Your task to perform on an android device: Clear all items from cart on bestbuy. Add sony triple a to the cart on bestbuy Image 0: 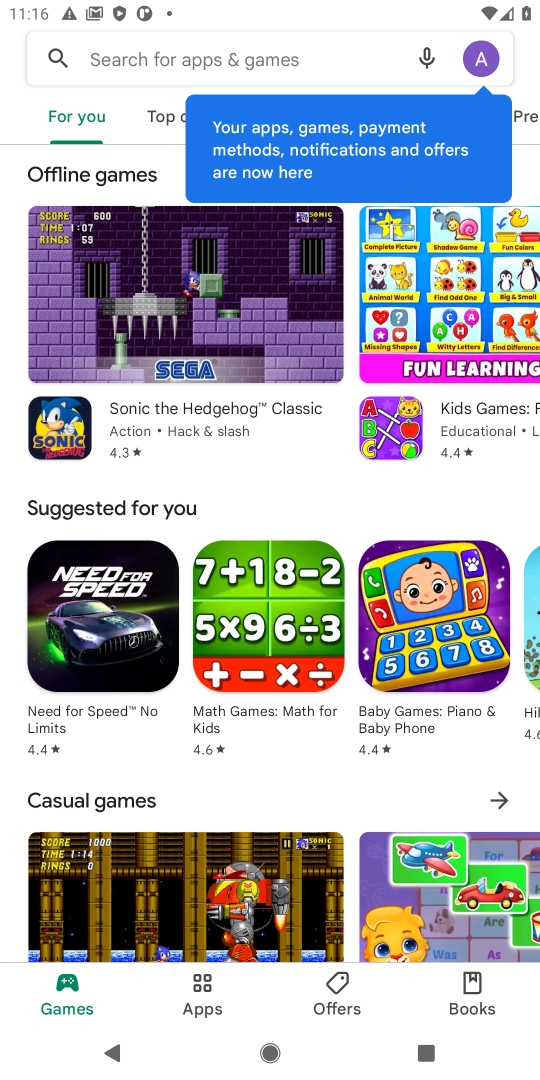
Step 0: press home button
Your task to perform on an android device: Clear all items from cart on bestbuy. Add sony triple a to the cart on bestbuy Image 1: 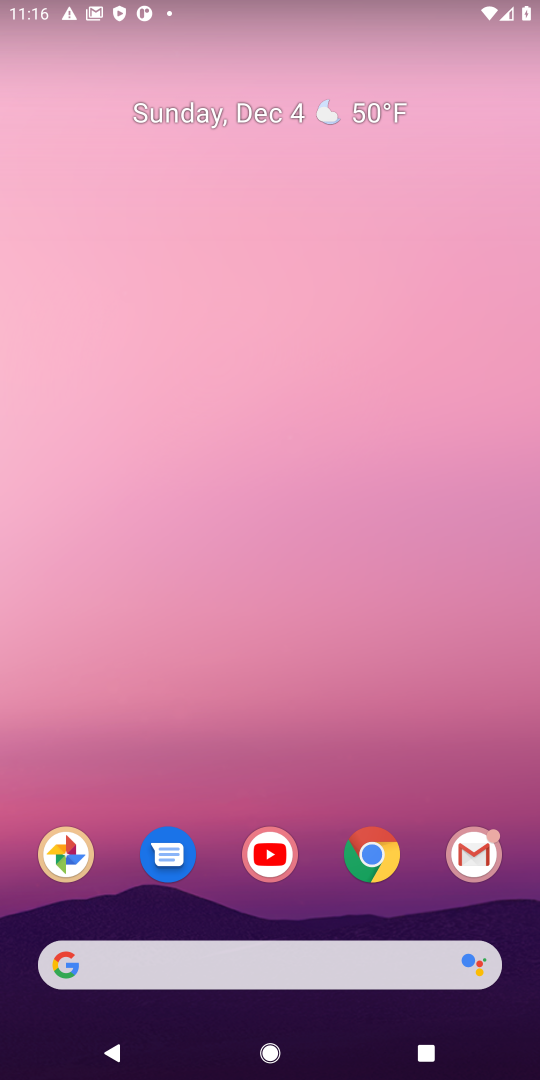
Step 1: click (150, 964)
Your task to perform on an android device: Clear all items from cart on bestbuy. Add sony triple a to the cart on bestbuy Image 2: 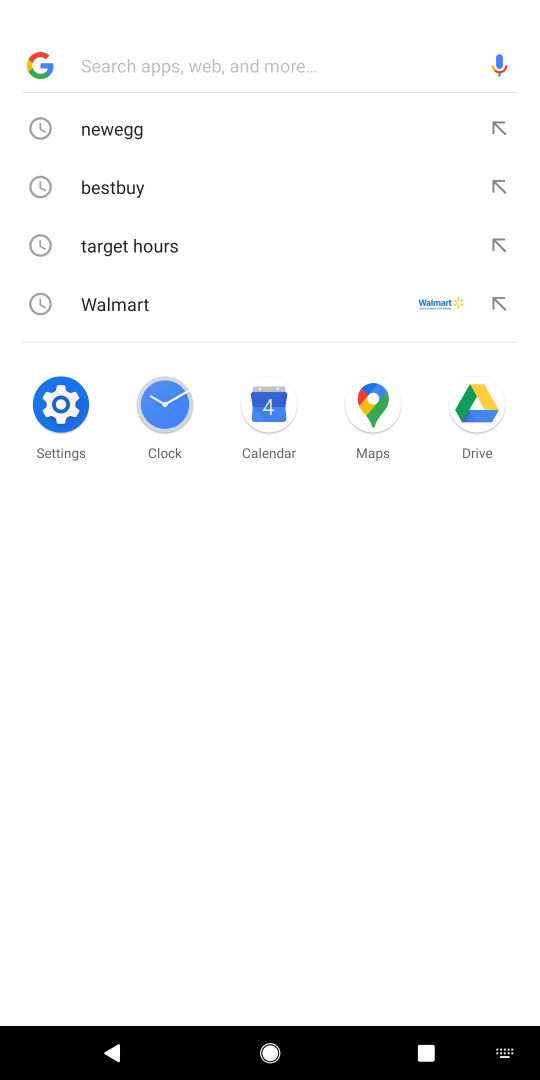
Step 2: type "bestbuy"
Your task to perform on an android device: Clear all items from cart on bestbuy. Add sony triple a to the cart on bestbuy Image 3: 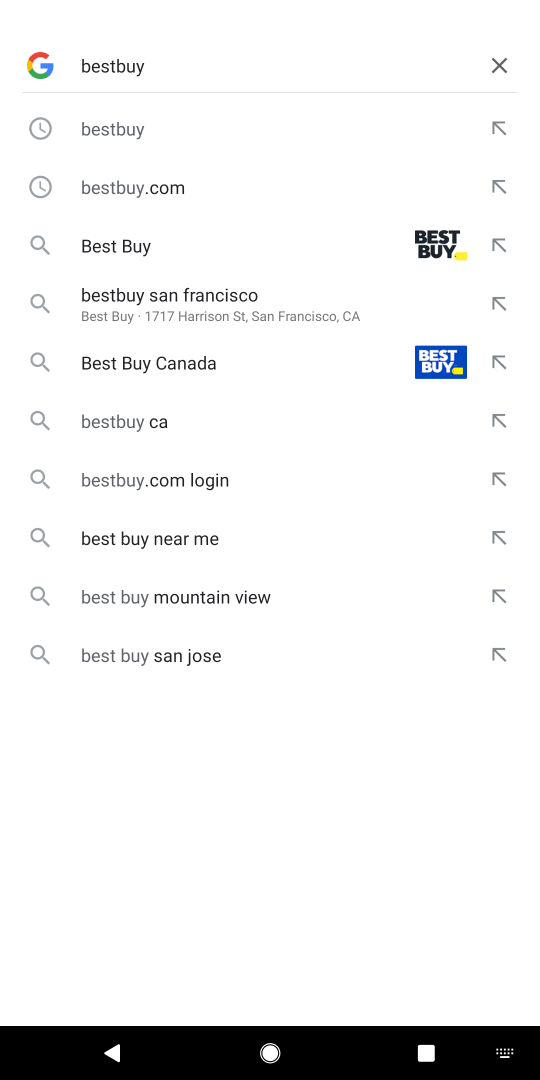
Step 3: click (145, 233)
Your task to perform on an android device: Clear all items from cart on bestbuy. Add sony triple a to the cart on bestbuy Image 4: 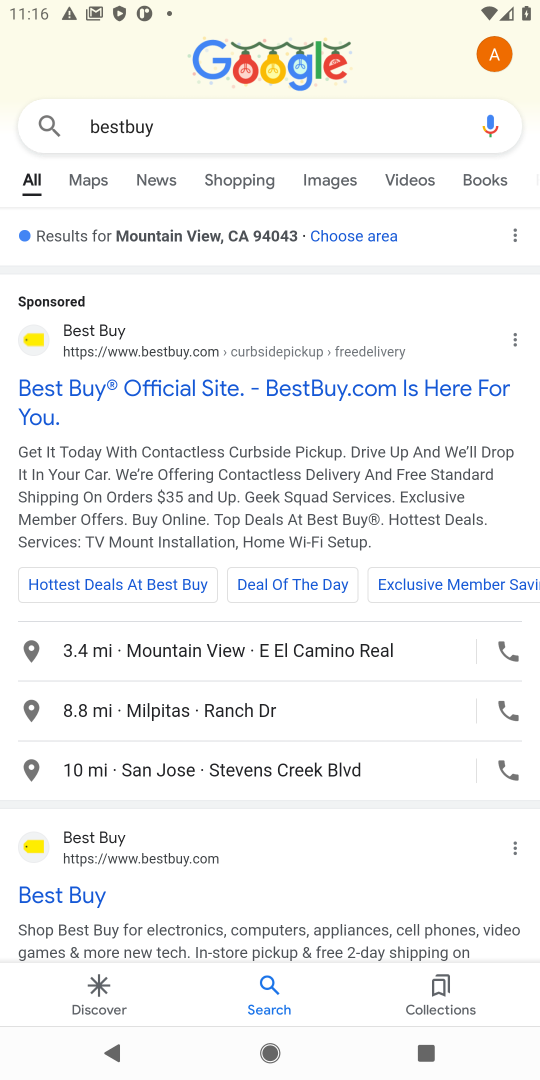
Step 4: click (188, 396)
Your task to perform on an android device: Clear all items from cart on bestbuy. Add sony triple a to the cart on bestbuy Image 5: 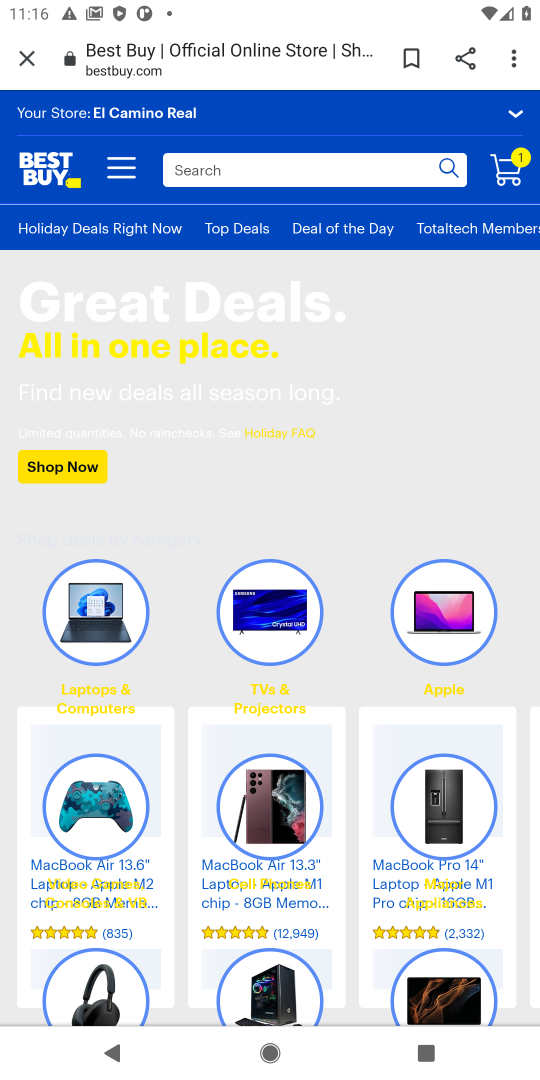
Step 5: click (240, 180)
Your task to perform on an android device: Clear all items from cart on bestbuy. Add sony triple a to the cart on bestbuy Image 6: 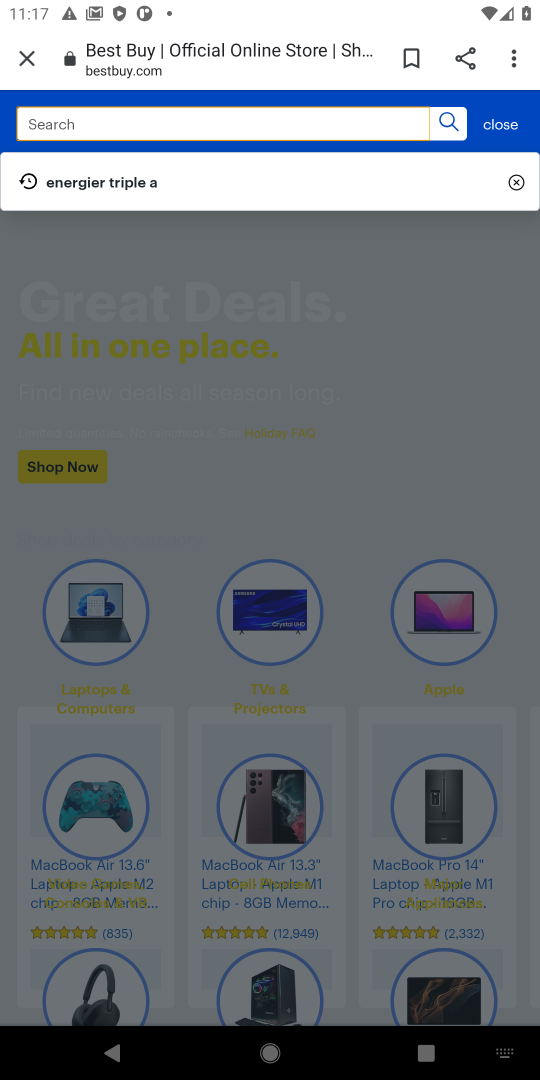
Step 6: type "sony triple a"
Your task to perform on an android device: Clear all items from cart on bestbuy. Add sony triple a to the cart on bestbuy Image 7: 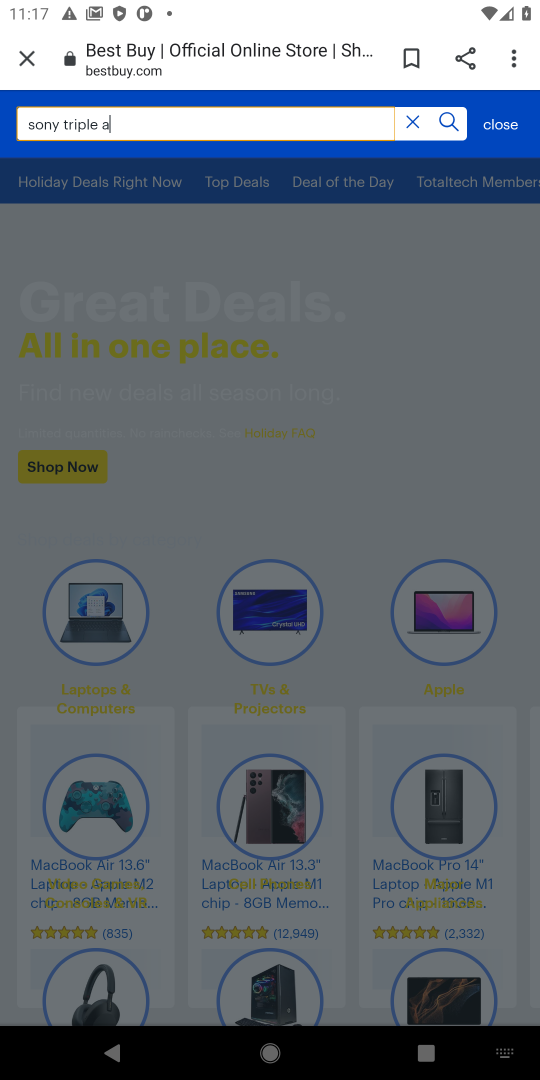
Step 7: click (451, 132)
Your task to perform on an android device: Clear all items from cart on bestbuy. Add sony triple a to the cart on bestbuy Image 8: 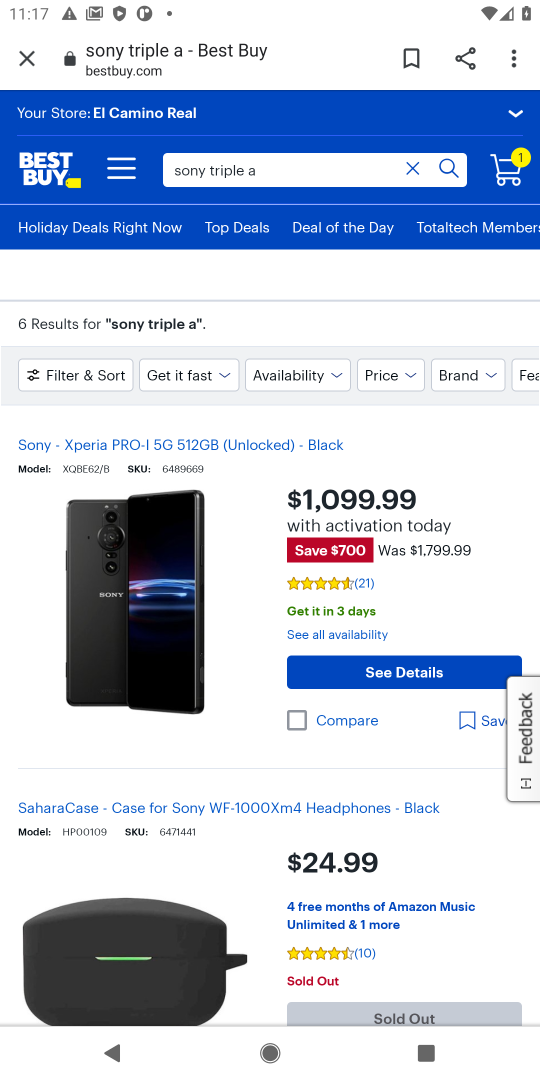
Step 8: click (352, 1021)
Your task to perform on an android device: Clear all items from cart on bestbuy. Add sony triple a to the cart on bestbuy Image 9: 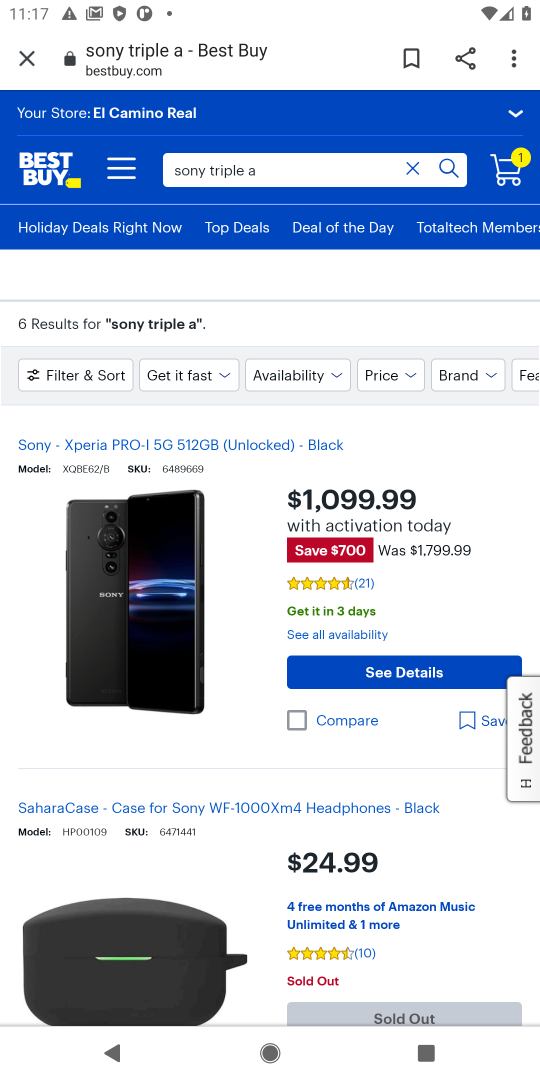
Step 9: task complete